Your task to perform on an android device: toggle show notifications on the lock screen Image 0: 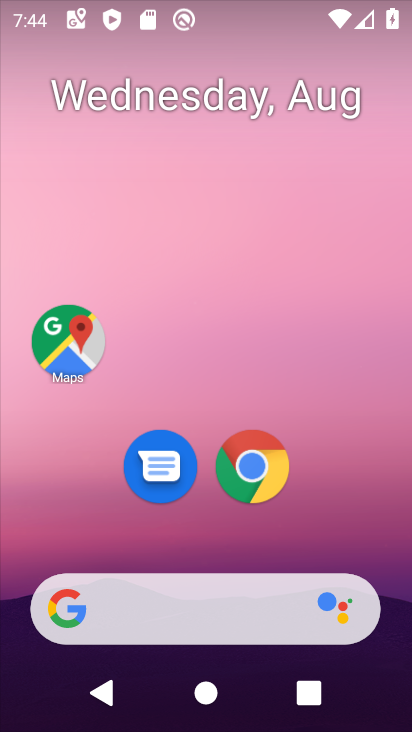
Step 0: drag from (367, 528) to (406, 78)
Your task to perform on an android device: toggle show notifications on the lock screen Image 1: 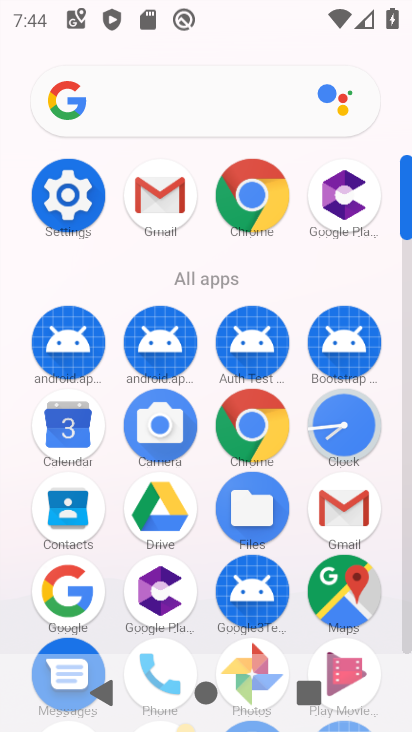
Step 1: click (77, 212)
Your task to perform on an android device: toggle show notifications on the lock screen Image 2: 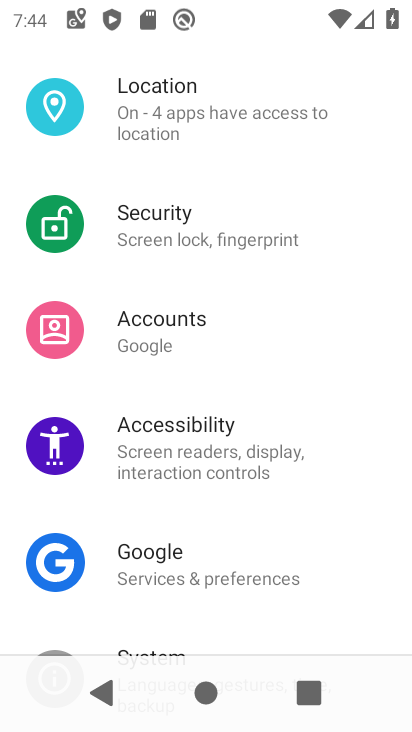
Step 2: drag from (337, 157) to (300, 451)
Your task to perform on an android device: toggle show notifications on the lock screen Image 3: 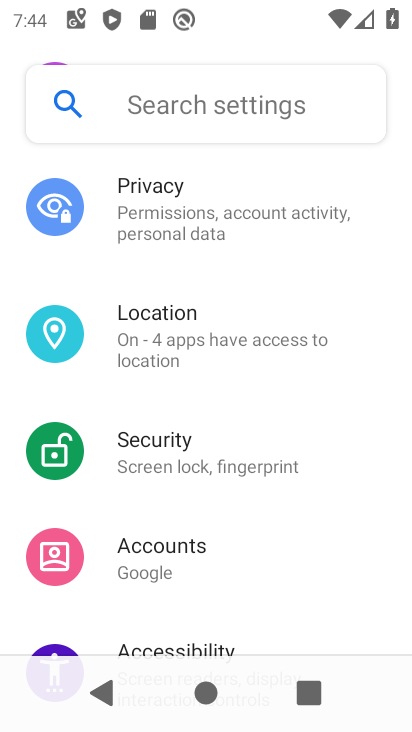
Step 3: drag from (338, 272) to (331, 535)
Your task to perform on an android device: toggle show notifications on the lock screen Image 4: 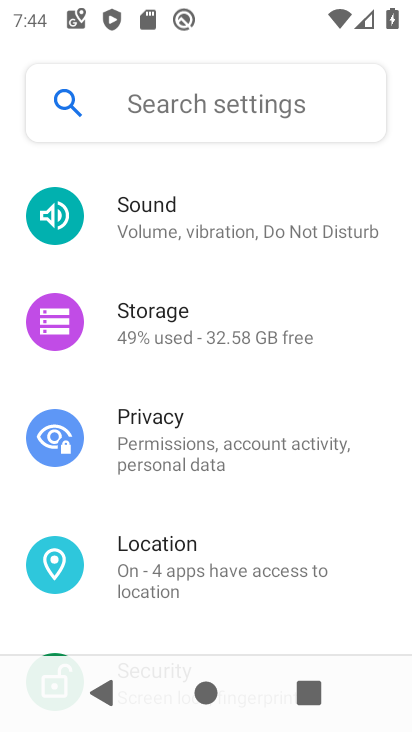
Step 4: drag from (341, 281) to (300, 485)
Your task to perform on an android device: toggle show notifications on the lock screen Image 5: 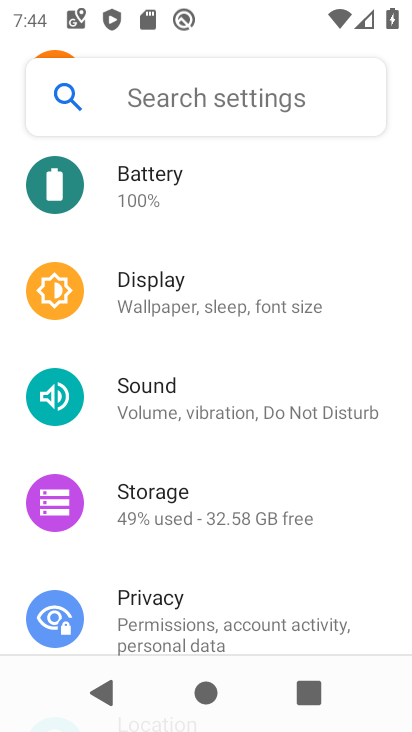
Step 5: drag from (248, 203) to (218, 478)
Your task to perform on an android device: toggle show notifications on the lock screen Image 6: 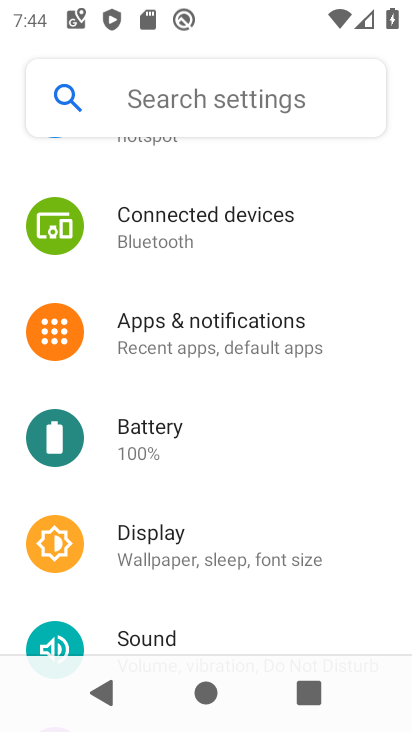
Step 6: click (215, 346)
Your task to perform on an android device: toggle show notifications on the lock screen Image 7: 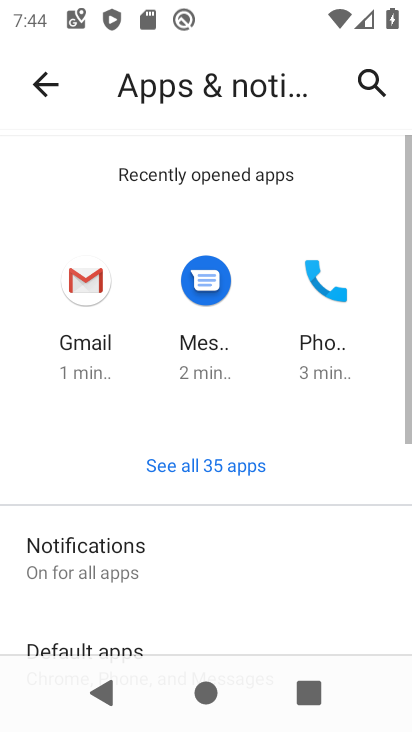
Step 7: click (101, 539)
Your task to perform on an android device: toggle show notifications on the lock screen Image 8: 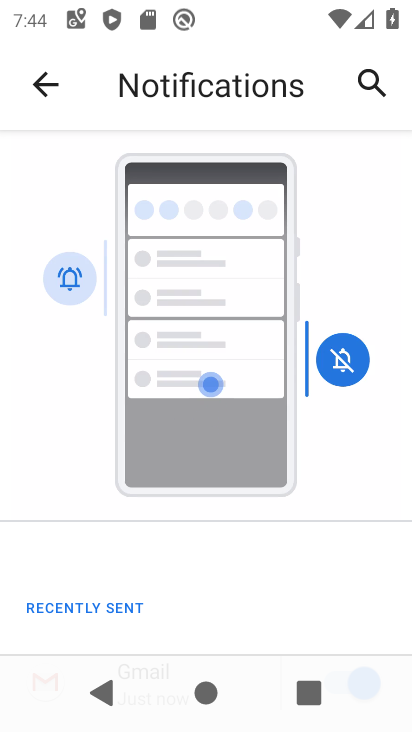
Step 8: drag from (272, 599) to (314, 189)
Your task to perform on an android device: toggle show notifications on the lock screen Image 9: 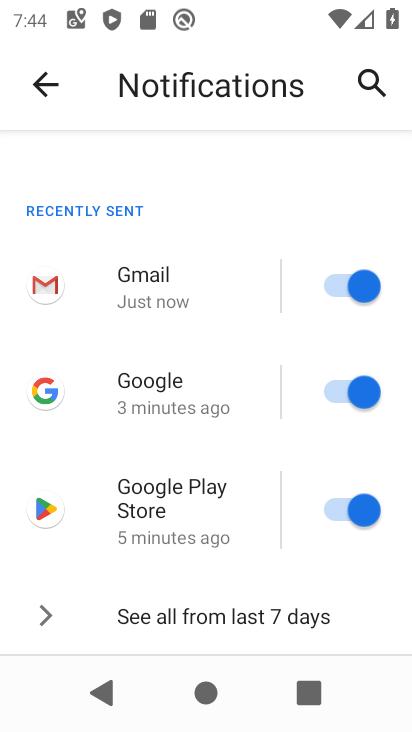
Step 9: drag from (363, 625) to (314, 245)
Your task to perform on an android device: toggle show notifications on the lock screen Image 10: 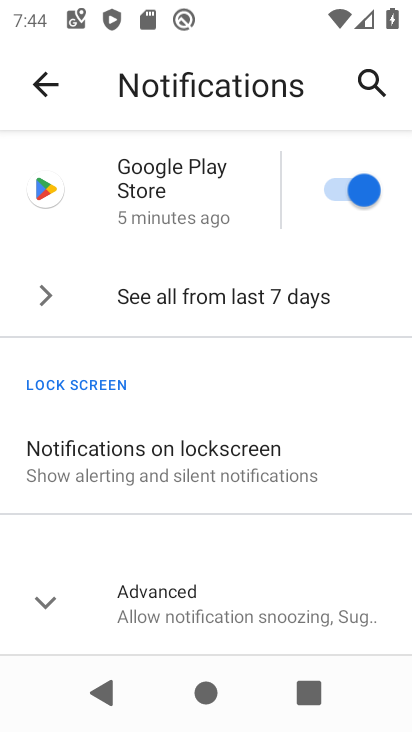
Step 10: click (175, 453)
Your task to perform on an android device: toggle show notifications on the lock screen Image 11: 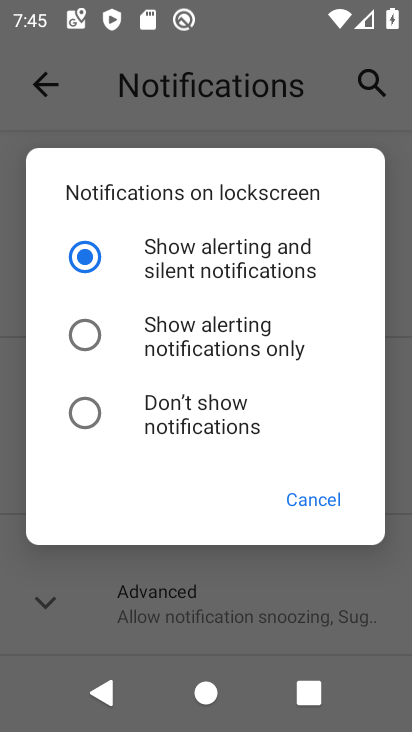
Step 11: click (197, 365)
Your task to perform on an android device: toggle show notifications on the lock screen Image 12: 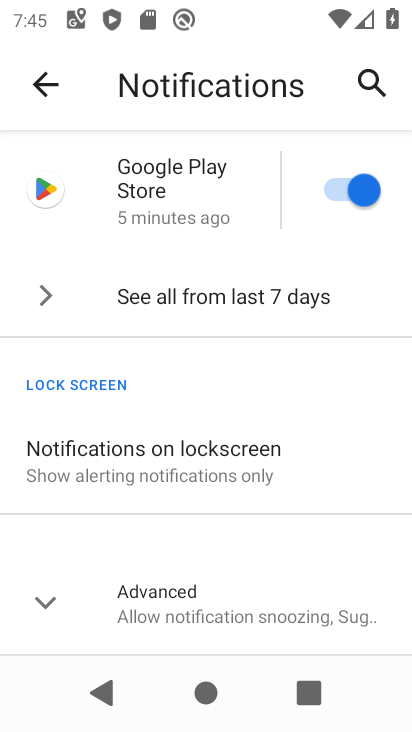
Step 12: task complete